Your task to perform on an android device: When is my next meeting? Image 0: 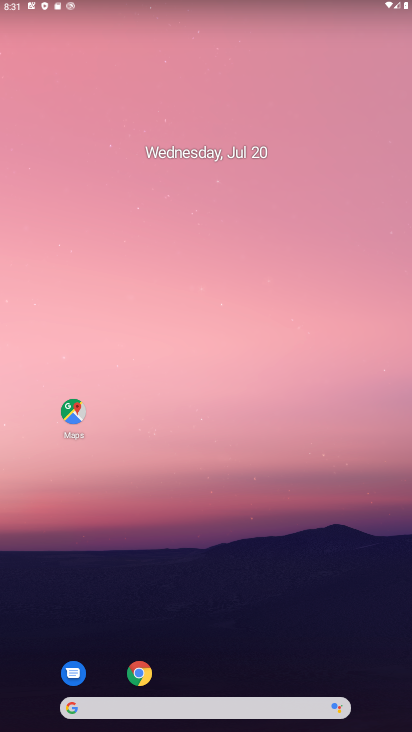
Step 0: drag from (257, 693) to (220, 198)
Your task to perform on an android device: When is my next meeting? Image 1: 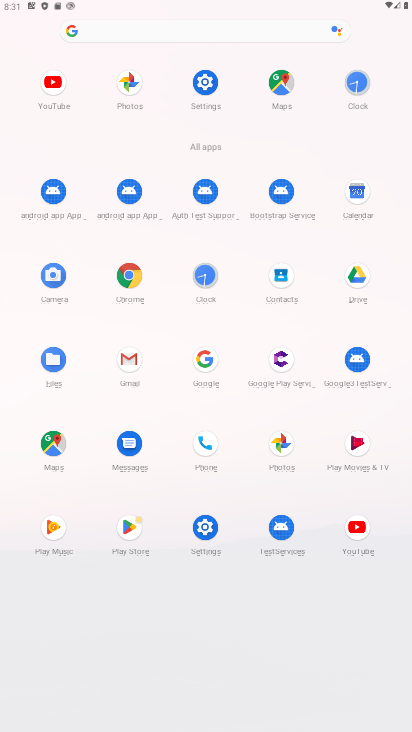
Step 1: click (360, 189)
Your task to perform on an android device: When is my next meeting? Image 2: 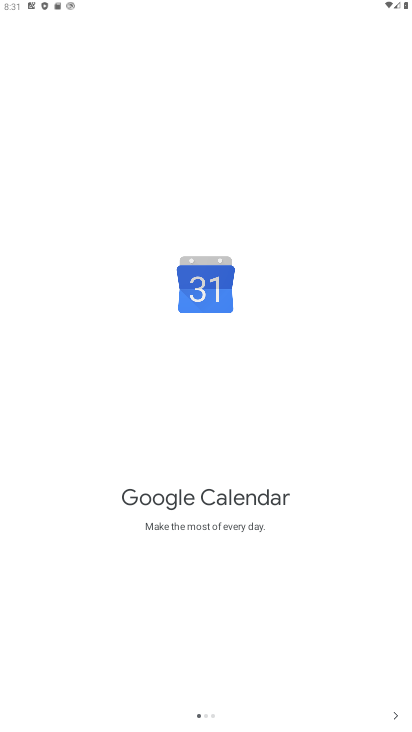
Step 2: click (394, 714)
Your task to perform on an android device: When is my next meeting? Image 3: 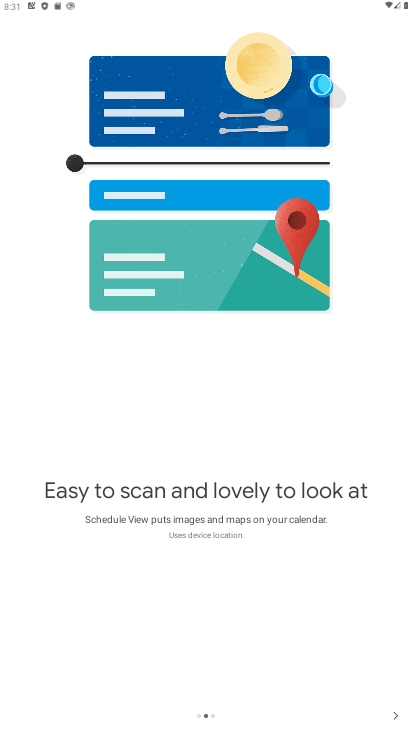
Step 3: click (395, 715)
Your task to perform on an android device: When is my next meeting? Image 4: 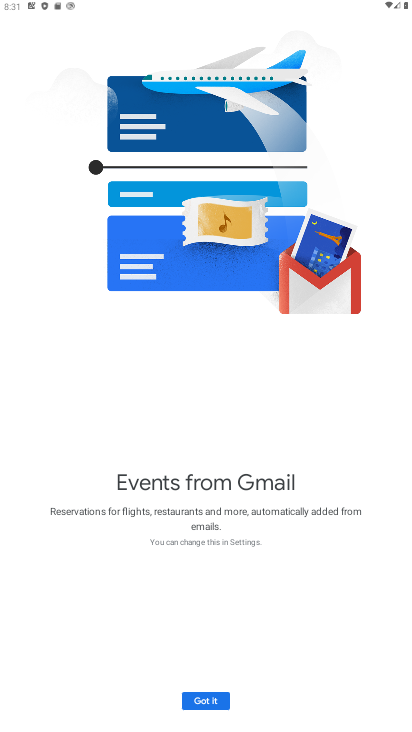
Step 4: click (220, 701)
Your task to perform on an android device: When is my next meeting? Image 5: 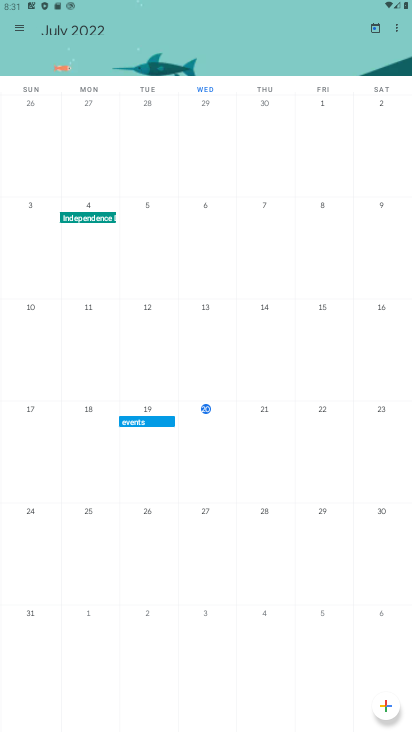
Step 5: click (266, 411)
Your task to perform on an android device: When is my next meeting? Image 6: 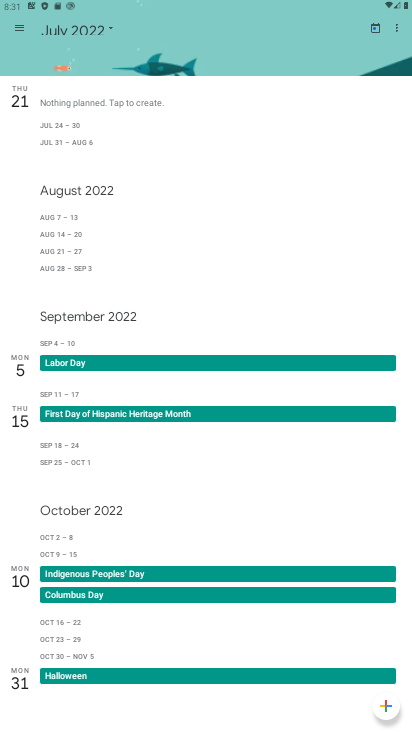
Step 6: task complete